Your task to perform on an android device: Open calendar and show me the second week of next month Image 0: 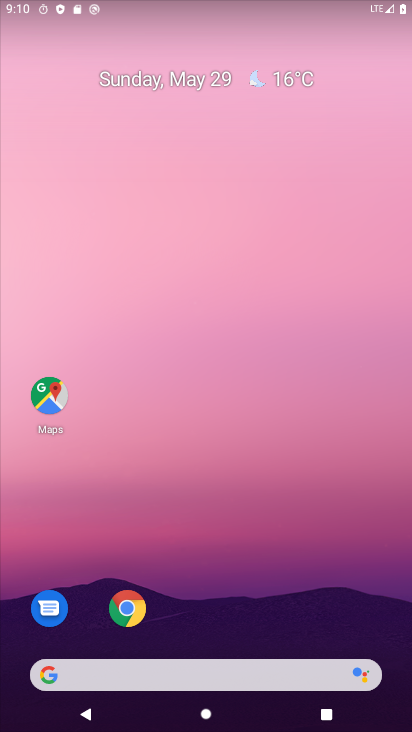
Step 0: drag from (244, 606) to (254, 30)
Your task to perform on an android device: Open calendar and show me the second week of next month Image 1: 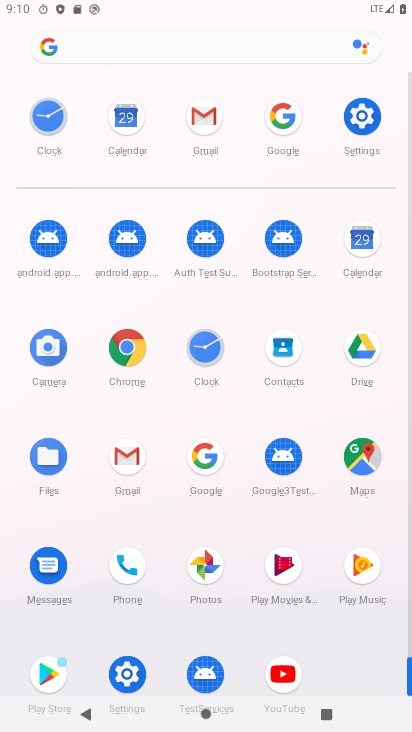
Step 1: click (364, 255)
Your task to perform on an android device: Open calendar and show me the second week of next month Image 2: 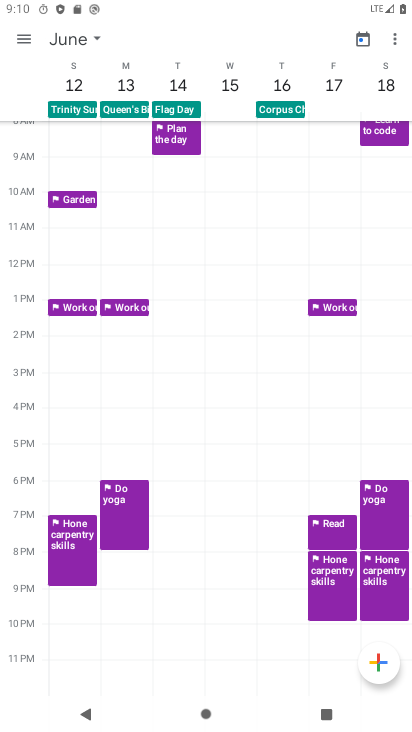
Step 2: click (69, 47)
Your task to perform on an android device: Open calendar and show me the second week of next month Image 3: 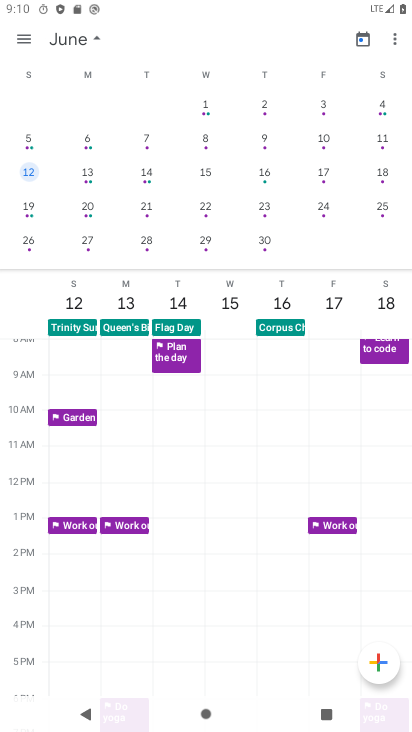
Step 3: click (69, 47)
Your task to perform on an android device: Open calendar and show me the second week of next month Image 4: 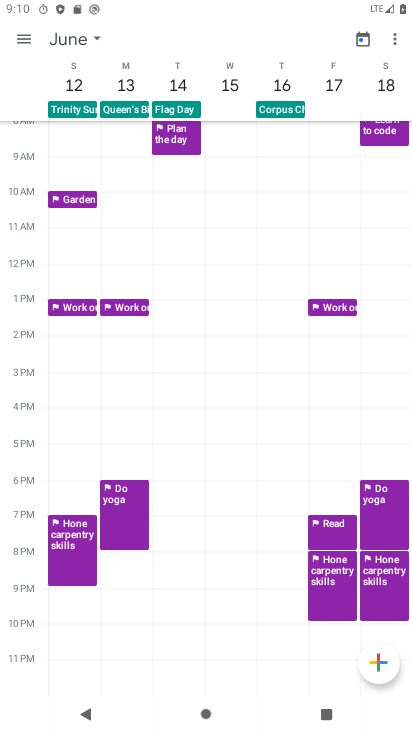
Step 4: task complete